Your task to perform on an android device: Open Maps and search for coffee Image 0: 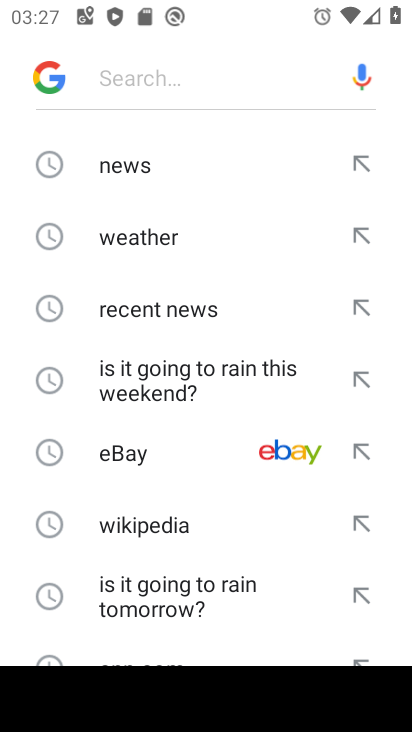
Step 0: press home button
Your task to perform on an android device: Open Maps and search for coffee Image 1: 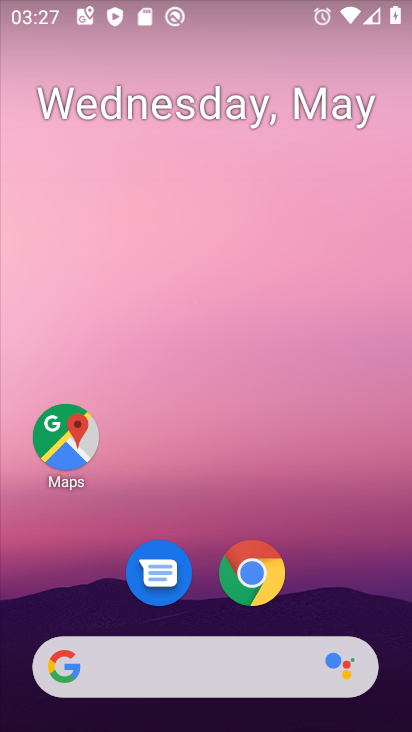
Step 1: drag from (229, 723) to (209, 0)
Your task to perform on an android device: Open Maps and search for coffee Image 2: 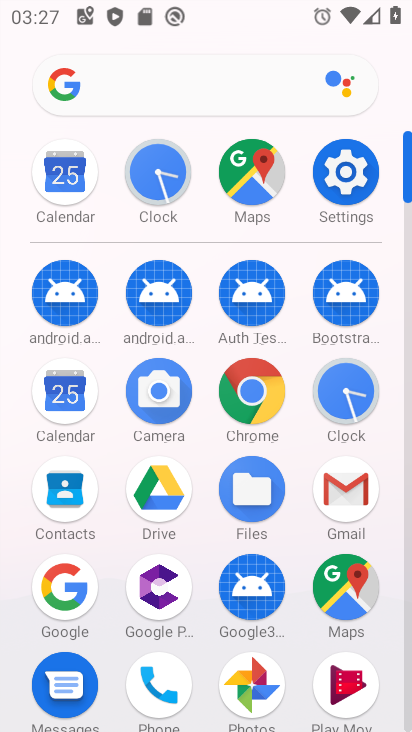
Step 2: click (349, 583)
Your task to perform on an android device: Open Maps and search for coffee Image 3: 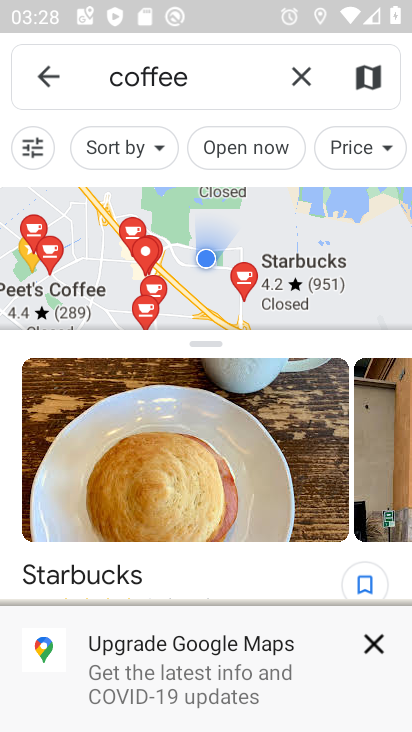
Step 3: task complete